Your task to perform on an android device: open the mobile data screen to see how much data has been used Image 0: 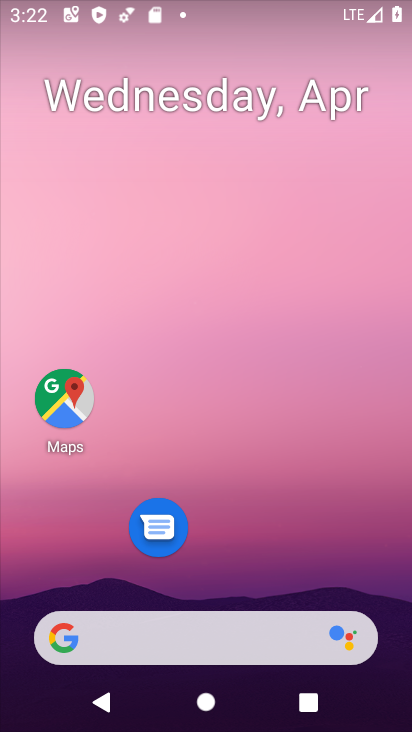
Step 0: drag from (242, 319) to (290, 0)
Your task to perform on an android device: open the mobile data screen to see how much data has been used Image 1: 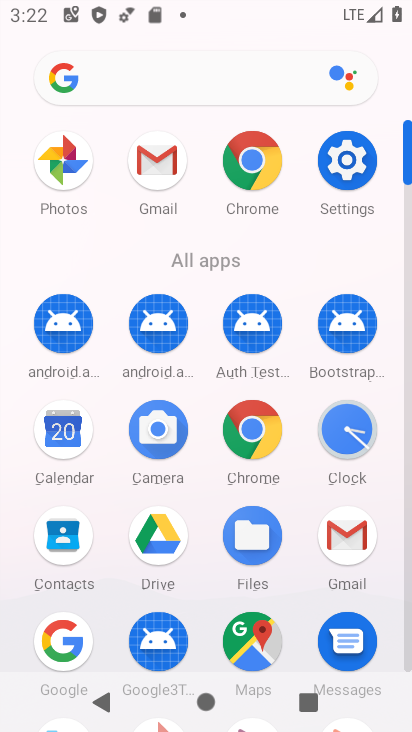
Step 1: click (346, 178)
Your task to perform on an android device: open the mobile data screen to see how much data has been used Image 2: 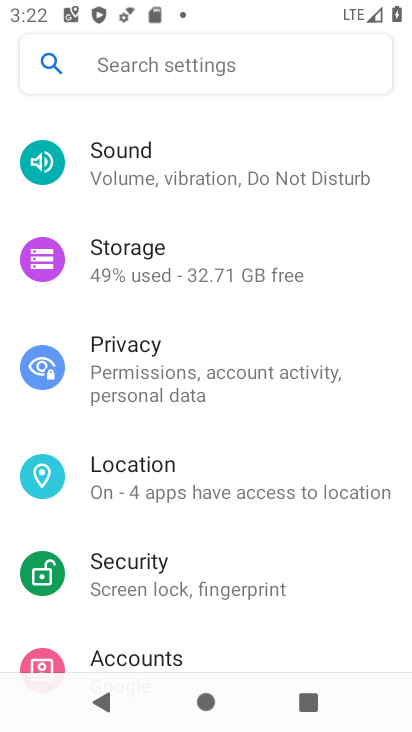
Step 2: drag from (193, 198) to (179, 601)
Your task to perform on an android device: open the mobile data screen to see how much data has been used Image 3: 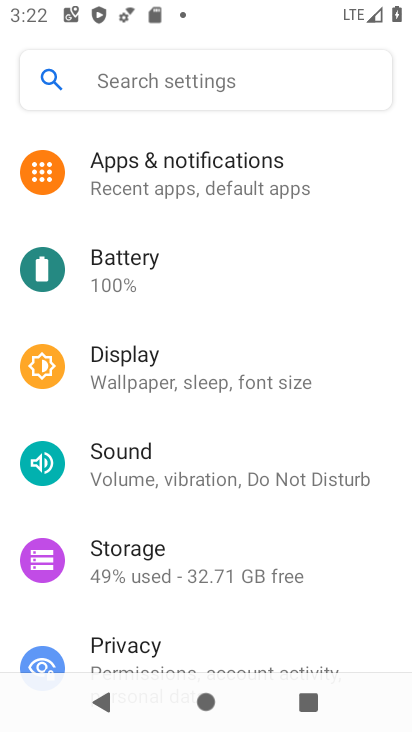
Step 3: drag from (221, 228) to (199, 536)
Your task to perform on an android device: open the mobile data screen to see how much data has been used Image 4: 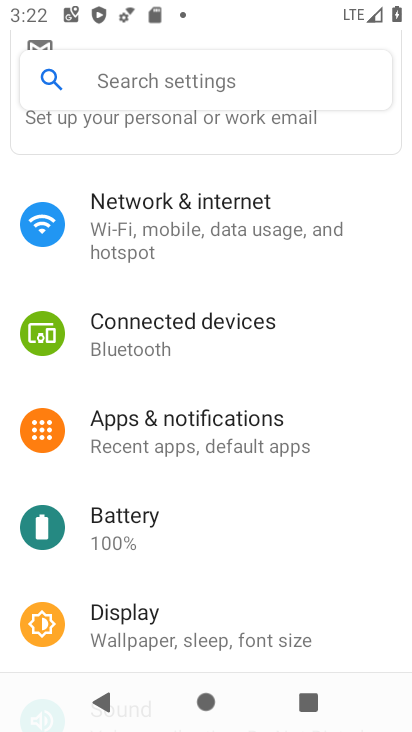
Step 4: click (210, 221)
Your task to perform on an android device: open the mobile data screen to see how much data has been used Image 5: 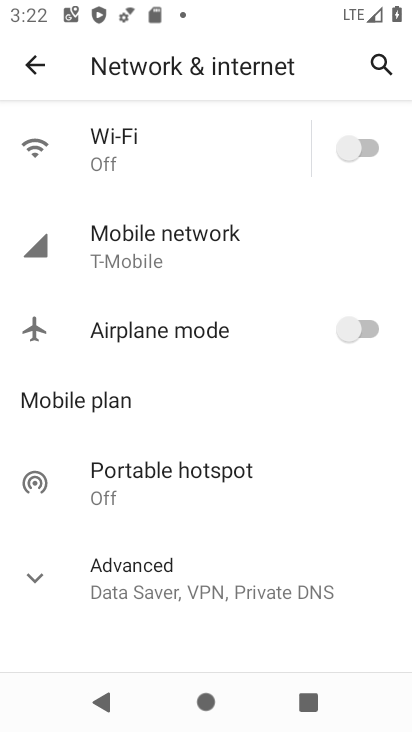
Step 5: click (196, 239)
Your task to perform on an android device: open the mobile data screen to see how much data has been used Image 6: 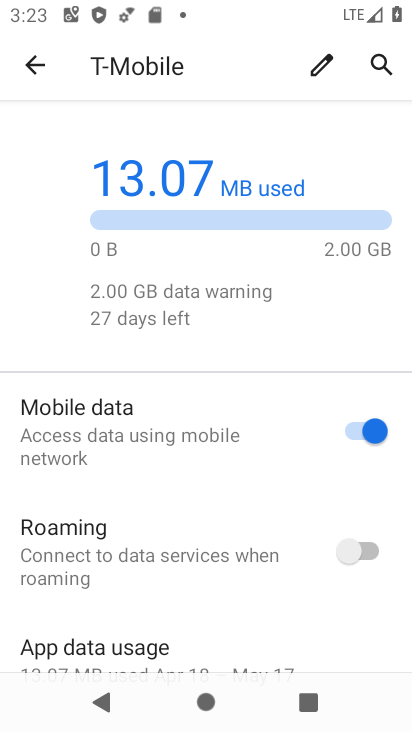
Step 6: task complete